Your task to perform on an android device: turn off javascript in the chrome app Image 0: 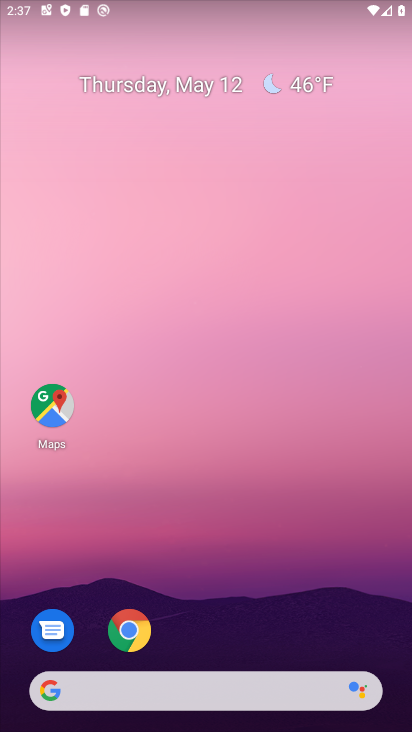
Step 0: click (126, 634)
Your task to perform on an android device: turn off javascript in the chrome app Image 1: 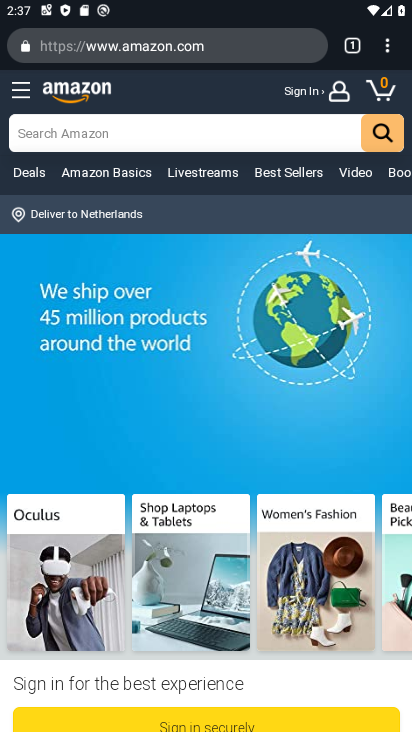
Step 1: click (389, 47)
Your task to perform on an android device: turn off javascript in the chrome app Image 2: 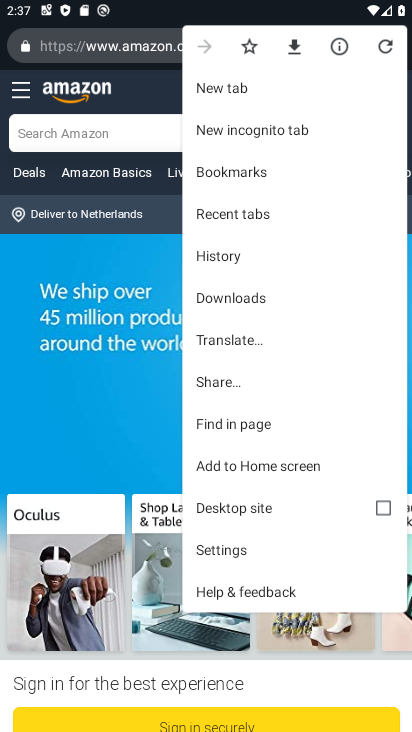
Step 2: click (226, 547)
Your task to perform on an android device: turn off javascript in the chrome app Image 3: 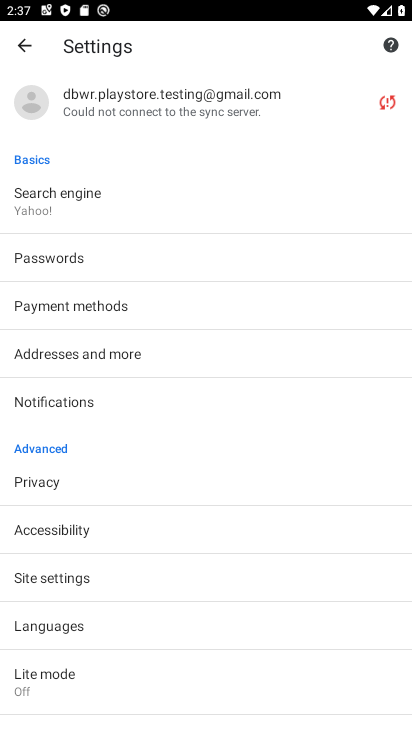
Step 3: click (79, 576)
Your task to perform on an android device: turn off javascript in the chrome app Image 4: 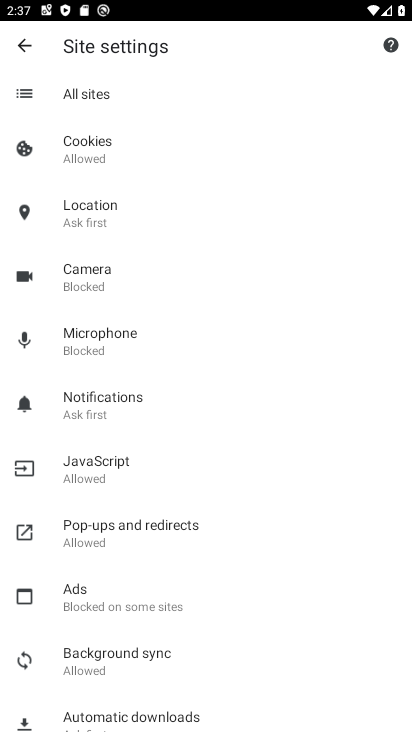
Step 4: click (119, 466)
Your task to perform on an android device: turn off javascript in the chrome app Image 5: 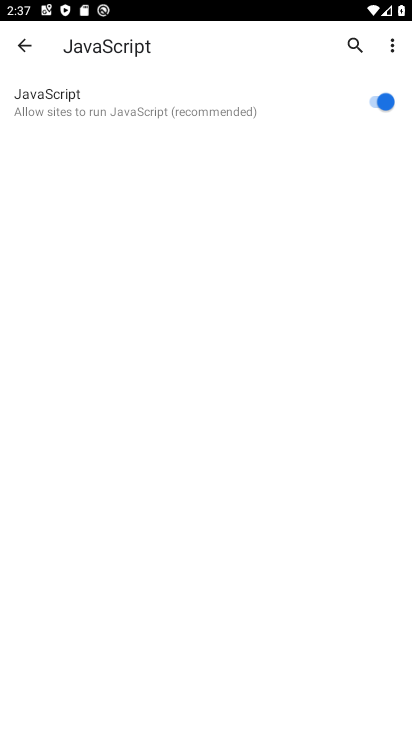
Step 5: click (380, 99)
Your task to perform on an android device: turn off javascript in the chrome app Image 6: 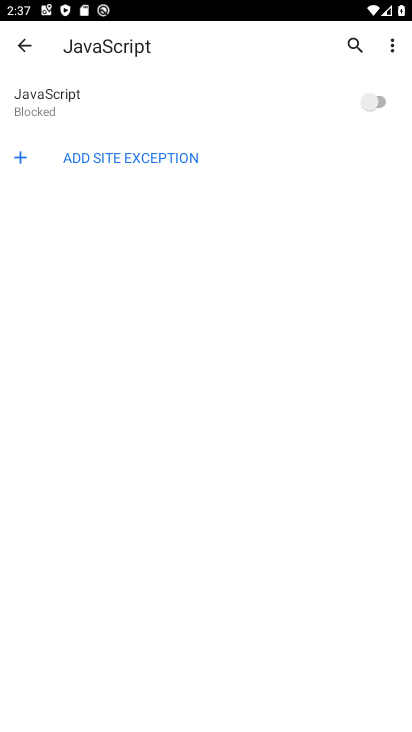
Step 6: task complete